Your task to perform on an android device: search for starred emails in the gmail app Image 0: 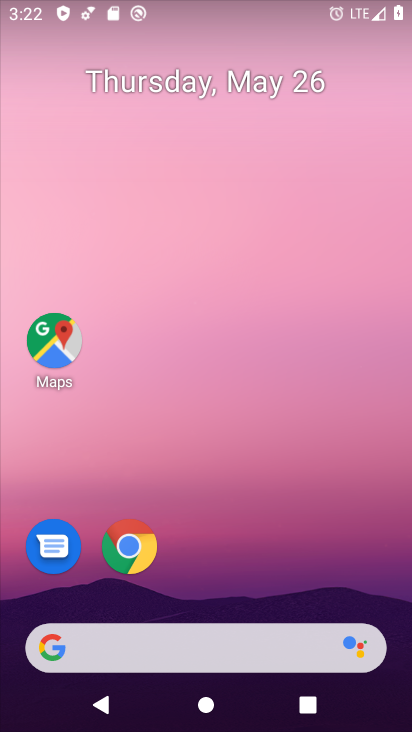
Step 0: drag from (256, 481) to (267, 17)
Your task to perform on an android device: search for starred emails in the gmail app Image 1: 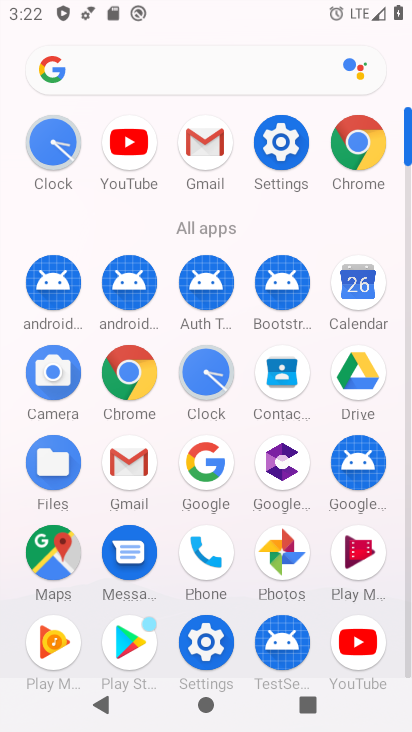
Step 1: click (221, 129)
Your task to perform on an android device: search for starred emails in the gmail app Image 2: 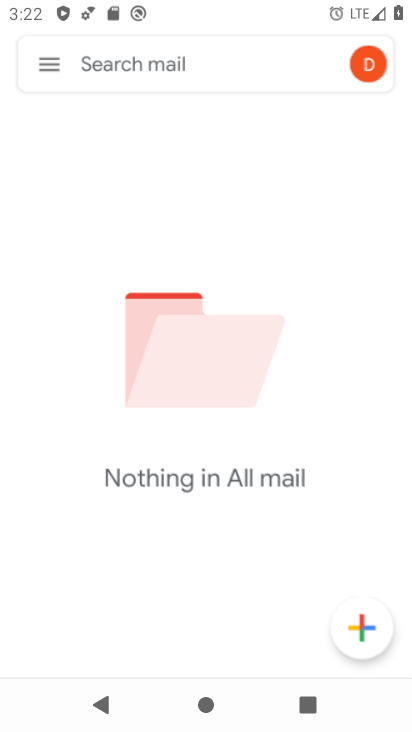
Step 2: click (44, 60)
Your task to perform on an android device: search for starred emails in the gmail app Image 3: 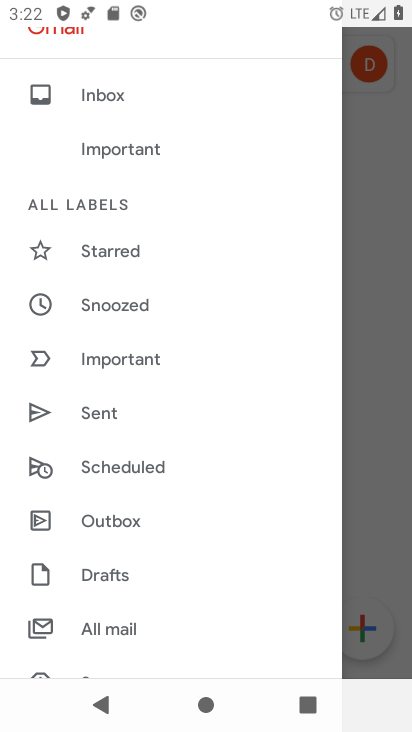
Step 3: click (94, 242)
Your task to perform on an android device: search for starred emails in the gmail app Image 4: 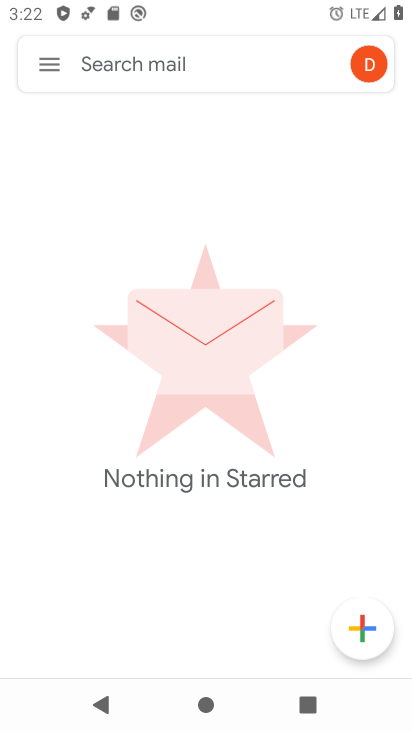
Step 4: task complete